Your task to perform on an android device: turn on notifications settings in the gmail app Image 0: 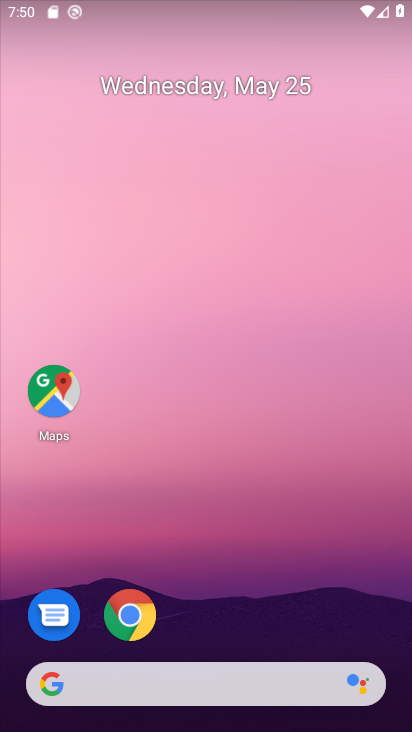
Step 0: drag from (264, 563) to (2, 440)
Your task to perform on an android device: turn on notifications settings in the gmail app Image 1: 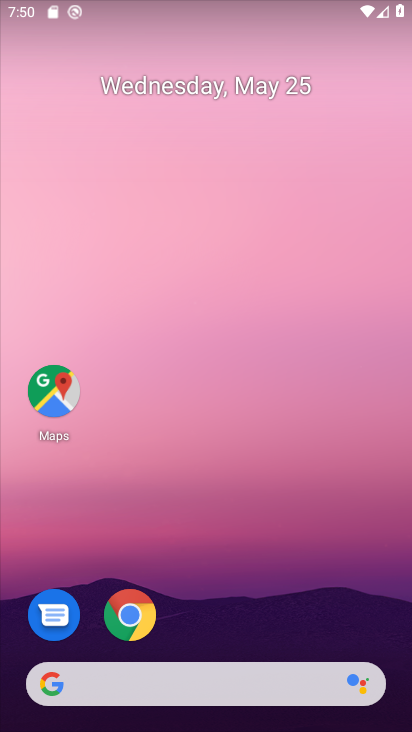
Step 1: drag from (6, 591) to (9, 58)
Your task to perform on an android device: turn on notifications settings in the gmail app Image 2: 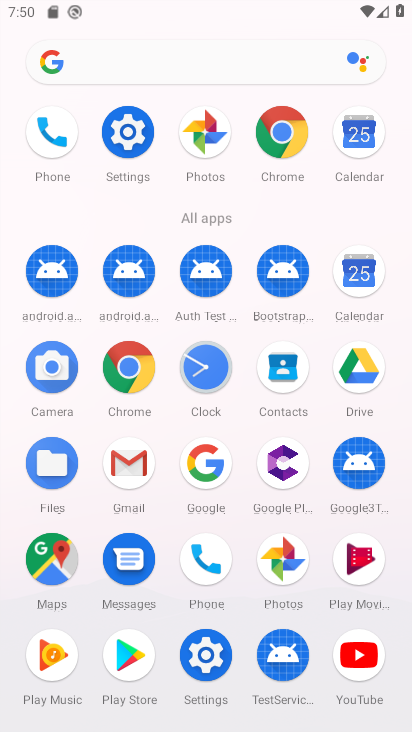
Step 2: click (126, 462)
Your task to perform on an android device: turn on notifications settings in the gmail app Image 3: 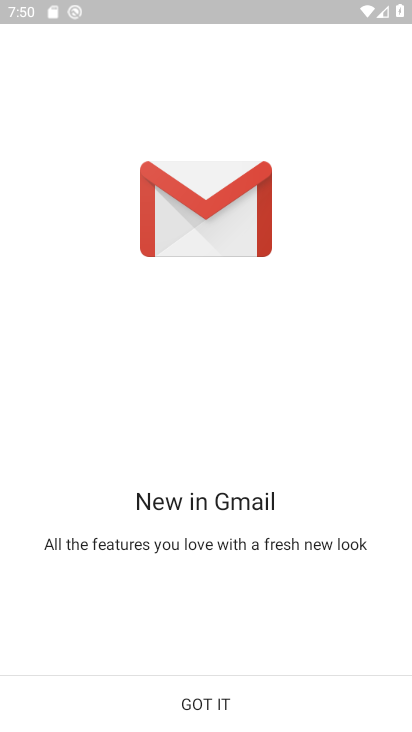
Step 3: click (209, 695)
Your task to perform on an android device: turn on notifications settings in the gmail app Image 4: 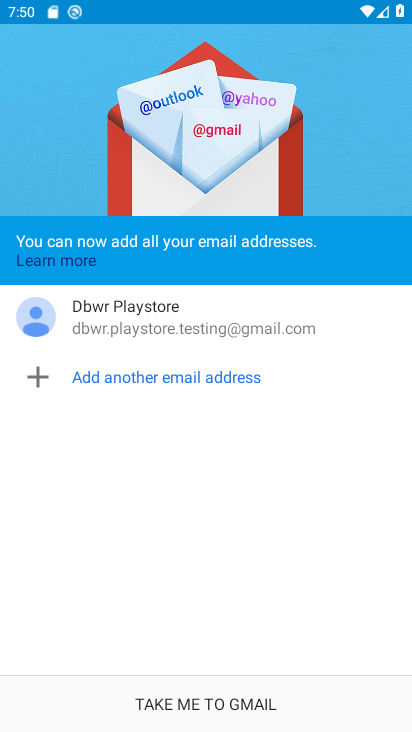
Step 4: click (185, 706)
Your task to perform on an android device: turn on notifications settings in the gmail app Image 5: 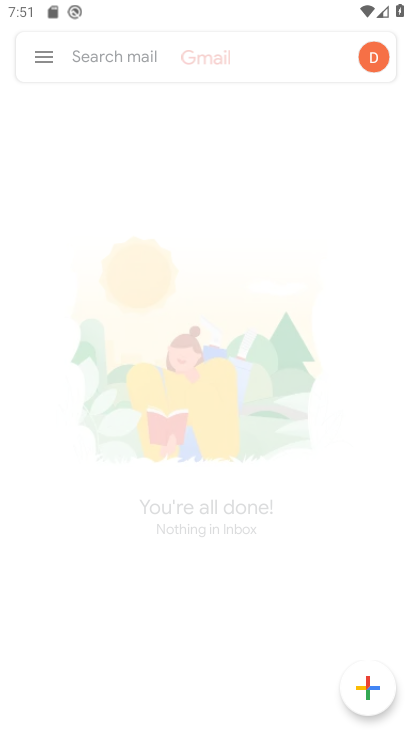
Step 5: click (40, 54)
Your task to perform on an android device: turn on notifications settings in the gmail app Image 6: 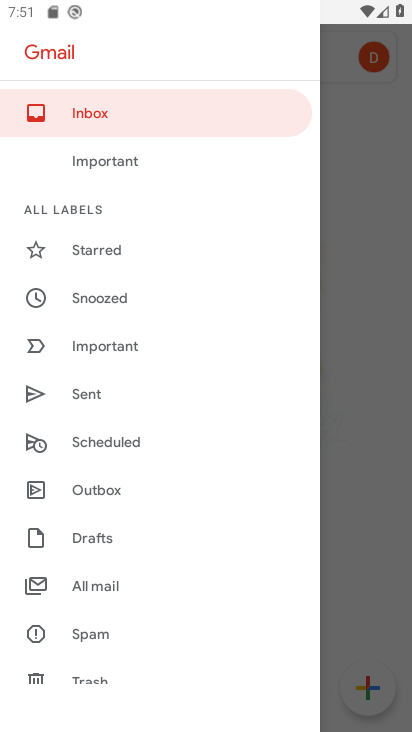
Step 6: drag from (148, 621) to (183, 202)
Your task to perform on an android device: turn on notifications settings in the gmail app Image 7: 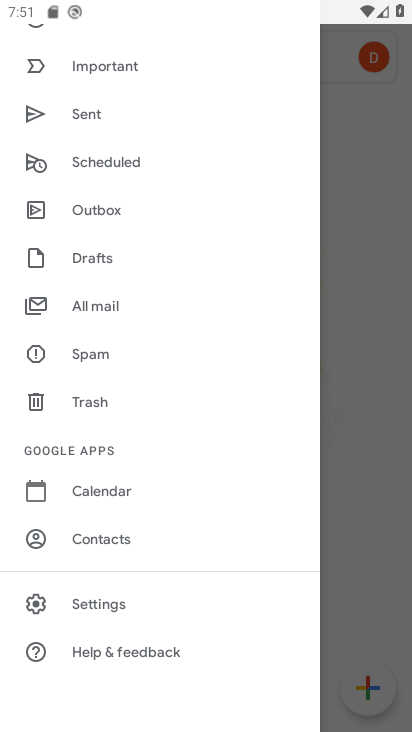
Step 7: click (106, 604)
Your task to perform on an android device: turn on notifications settings in the gmail app Image 8: 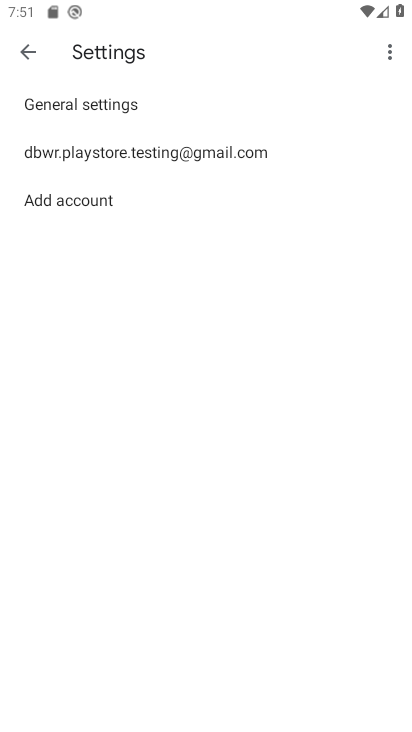
Step 8: click (138, 140)
Your task to perform on an android device: turn on notifications settings in the gmail app Image 9: 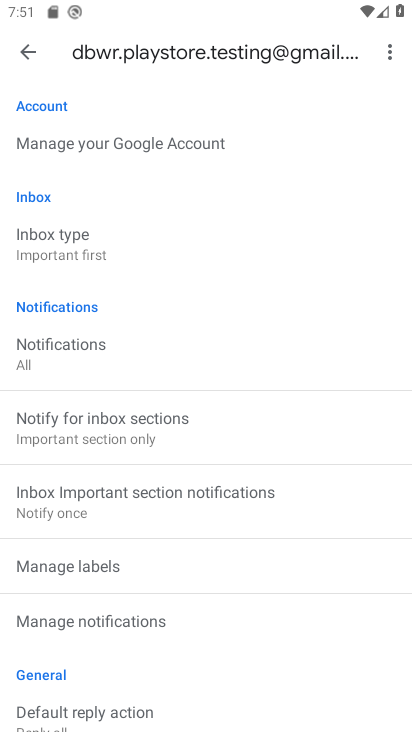
Step 9: click (103, 617)
Your task to perform on an android device: turn on notifications settings in the gmail app Image 10: 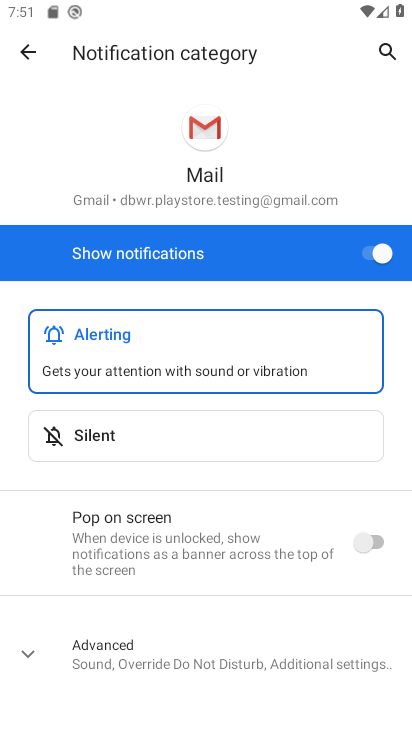
Step 10: click (28, 656)
Your task to perform on an android device: turn on notifications settings in the gmail app Image 11: 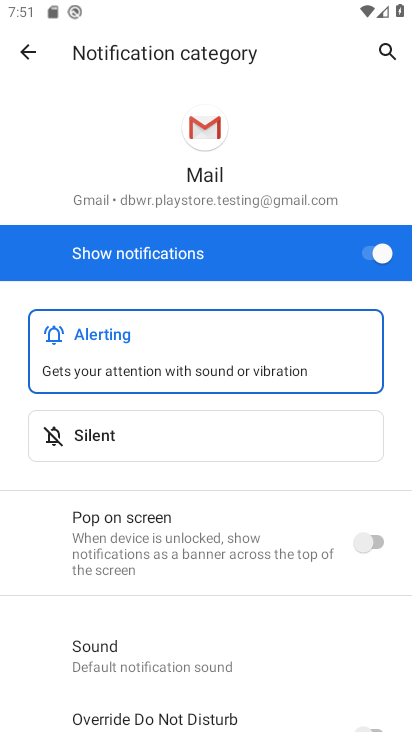
Step 11: task complete